Your task to perform on an android device: turn off smart reply in the gmail app Image 0: 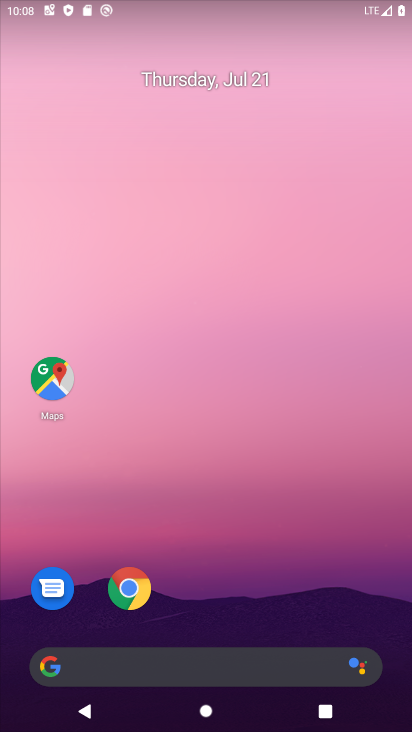
Step 0: drag from (333, 501) to (72, 474)
Your task to perform on an android device: turn off smart reply in the gmail app Image 1: 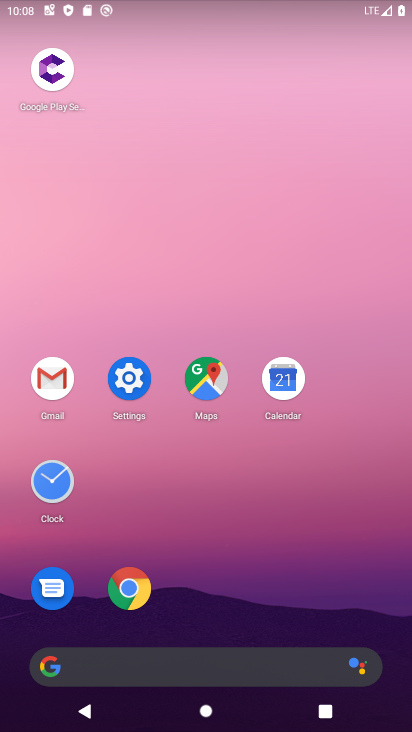
Step 1: click (55, 384)
Your task to perform on an android device: turn off smart reply in the gmail app Image 2: 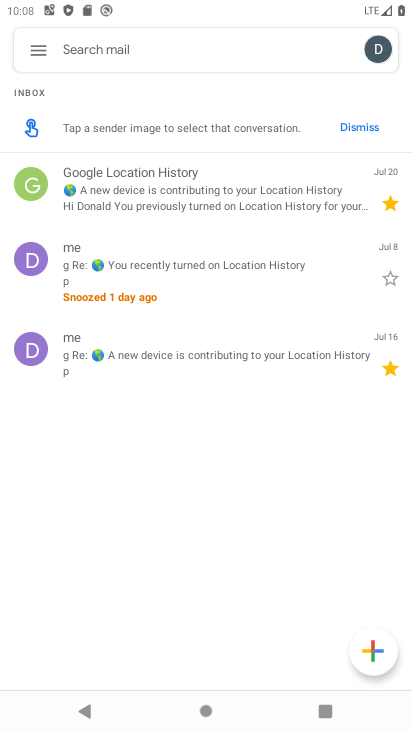
Step 2: click (31, 53)
Your task to perform on an android device: turn off smart reply in the gmail app Image 3: 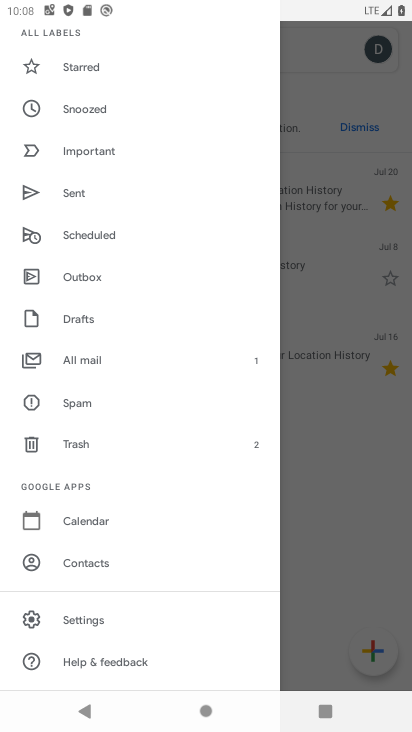
Step 3: click (76, 618)
Your task to perform on an android device: turn off smart reply in the gmail app Image 4: 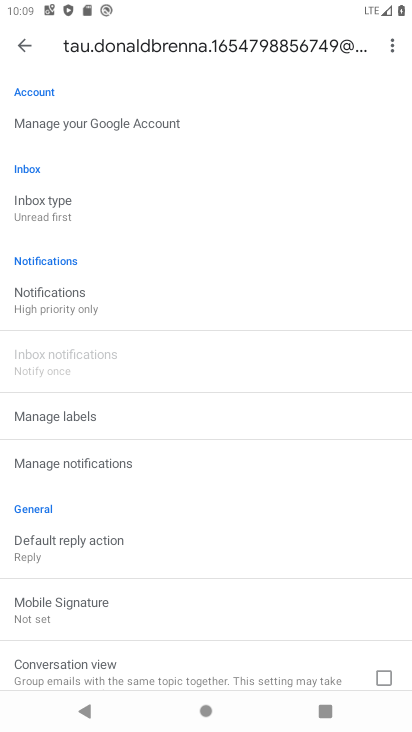
Step 4: drag from (198, 620) to (202, 374)
Your task to perform on an android device: turn off smart reply in the gmail app Image 5: 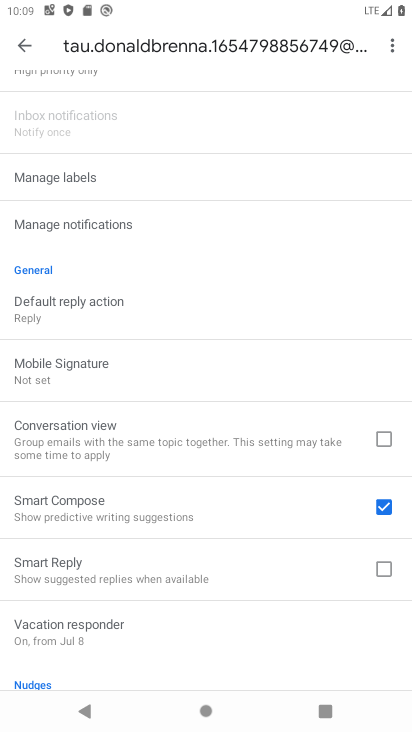
Step 5: click (43, 561)
Your task to perform on an android device: turn off smart reply in the gmail app Image 6: 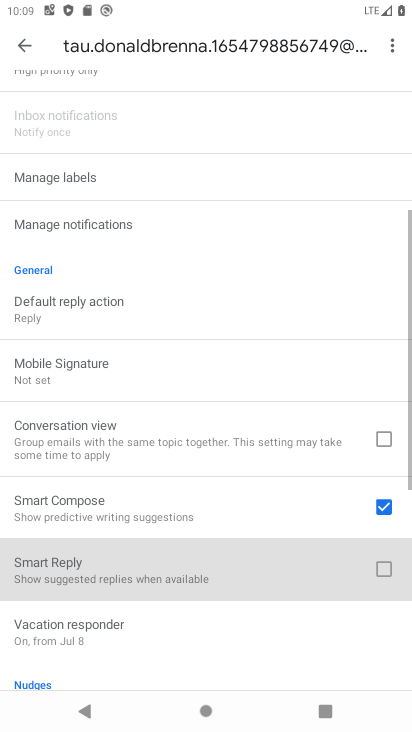
Step 6: click (43, 561)
Your task to perform on an android device: turn off smart reply in the gmail app Image 7: 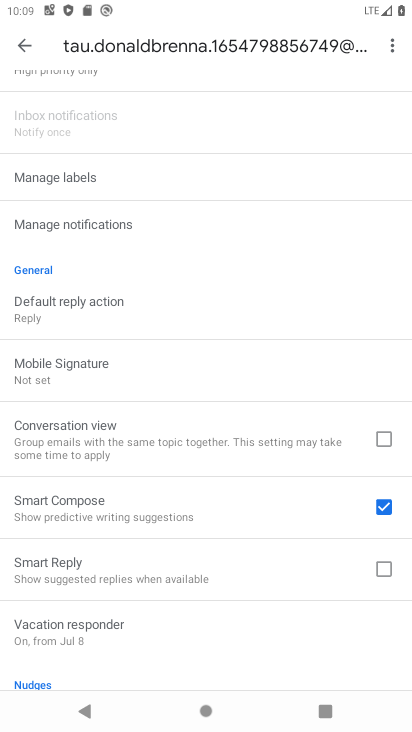
Step 7: task complete